Your task to perform on an android device: toggle translation in the chrome app Image 0: 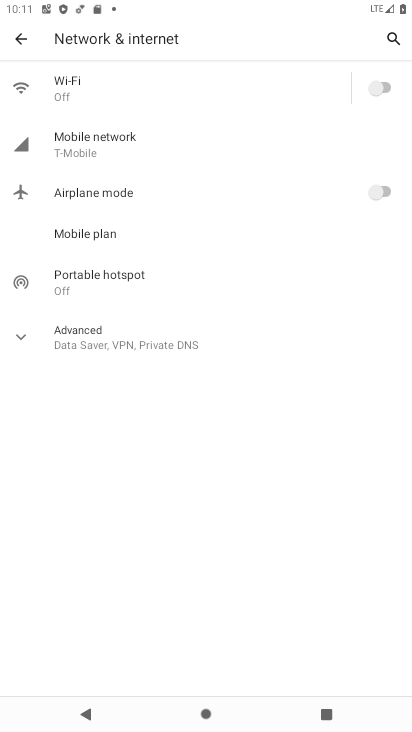
Step 0: press home button
Your task to perform on an android device: toggle translation in the chrome app Image 1: 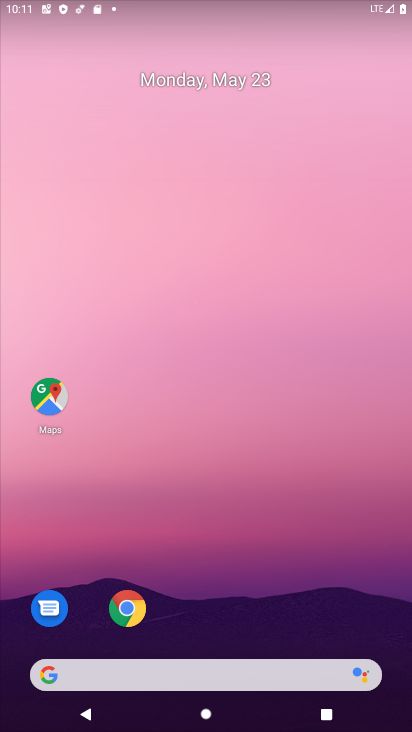
Step 1: click (139, 620)
Your task to perform on an android device: toggle translation in the chrome app Image 2: 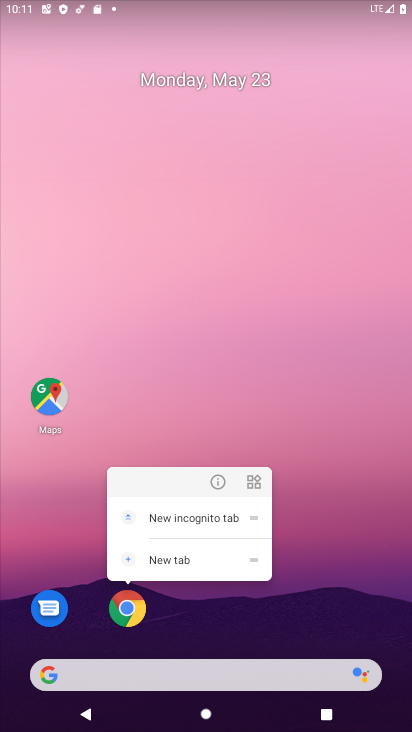
Step 2: click (126, 623)
Your task to perform on an android device: toggle translation in the chrome app Image 3: 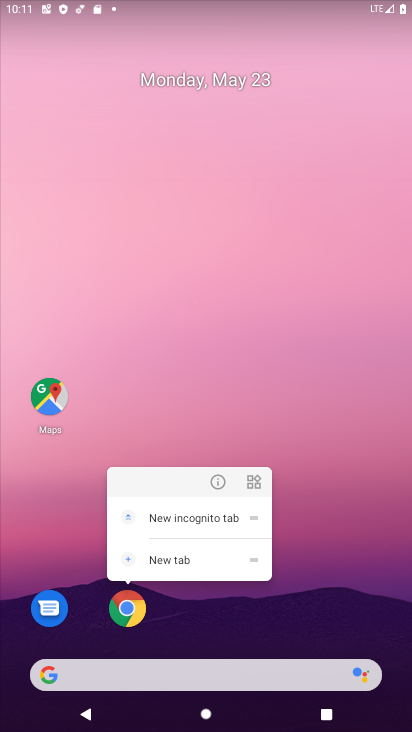
Step 3: click (129, 594)
Your task to perform on an android device: toggle translation in the chrome app Image 4: 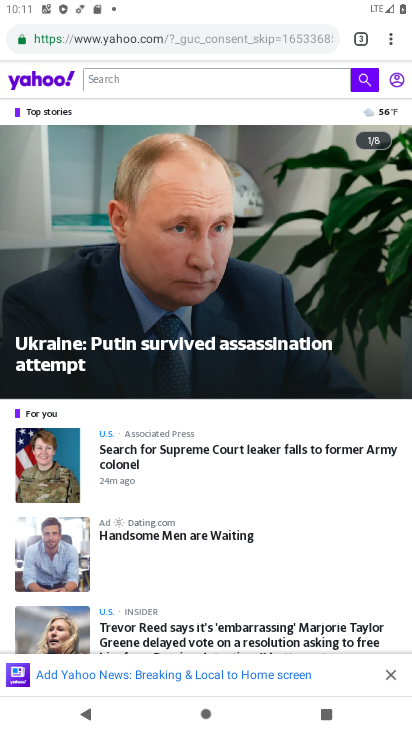
Step 4: drag from (394, 34) to (310, 469)
Your task to perform on an android device: toggle translation in the chrome app Image 5: 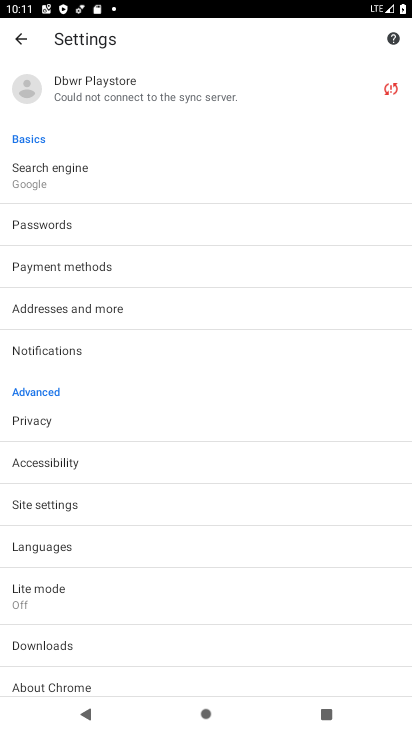
Step 5: click (97, 551)
Your task to perform on an android device: toggle translation in the chrome app Image 6: 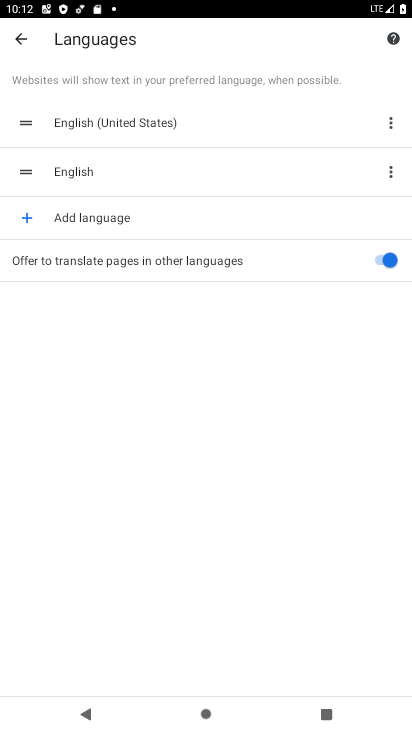
Step 6: click (380, 261)
Your task to perform on an android device: toggle translation in the chrome app Image 7: 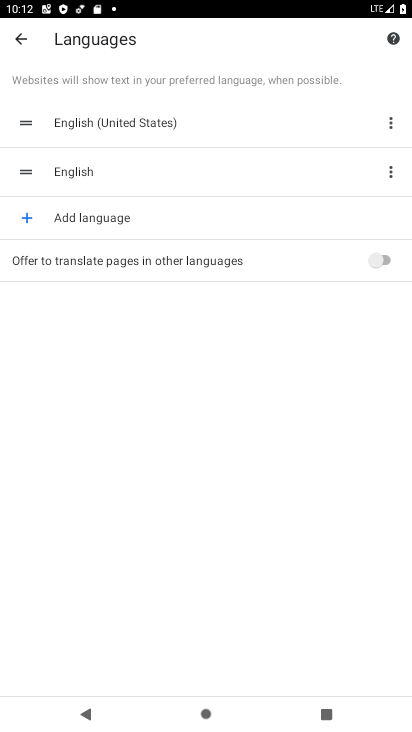
Step 7: task complete